Your task to perform on an android device: Turn on the flashlight Image 0: 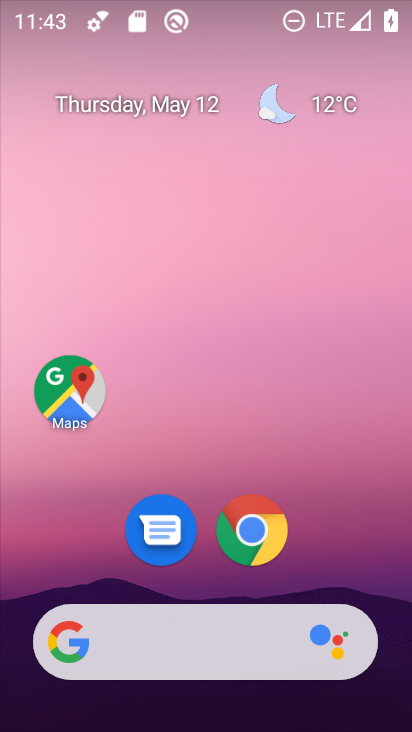
Step 0: press home button
Your task to perform on an android device: Turn on the flashlight Image 1: 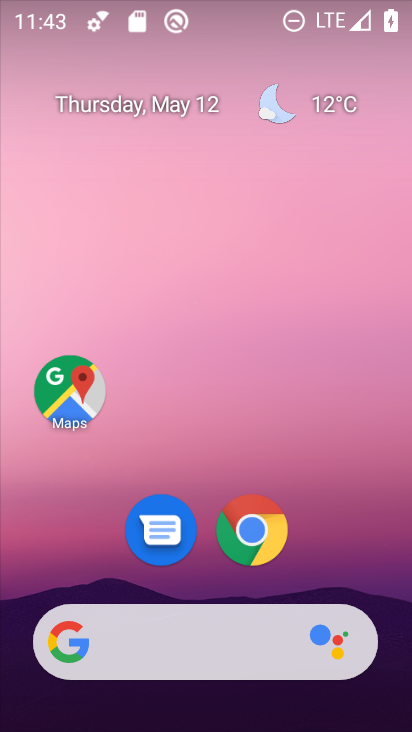
Step 1: task complete